Your task to perform on an android device: Search for Mexican restaurants on Maps Image 0: 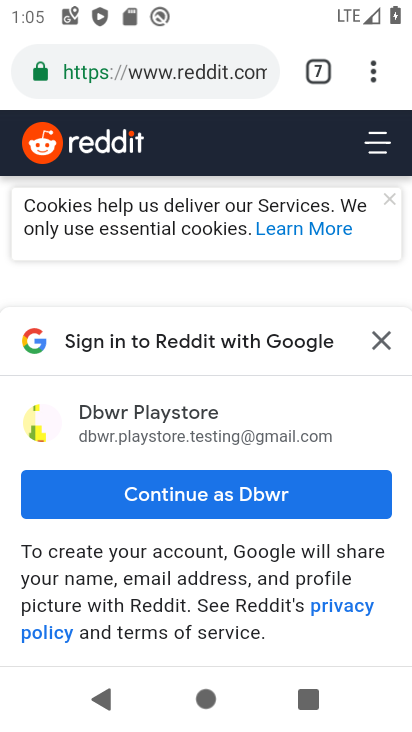
Step 0: press home button
Your task to perform on an android device: Search for Mexican restaurants on Maps Image 1: 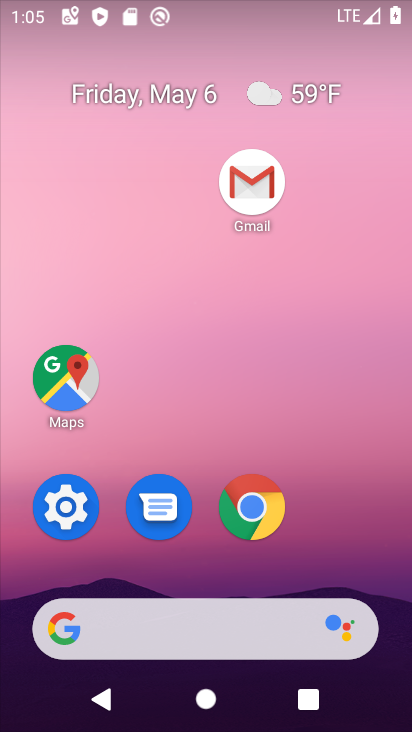
Step 1: click (46, 381)
Your task to perform on an android device: Search for Mexican restaurants on Maps Image 2: 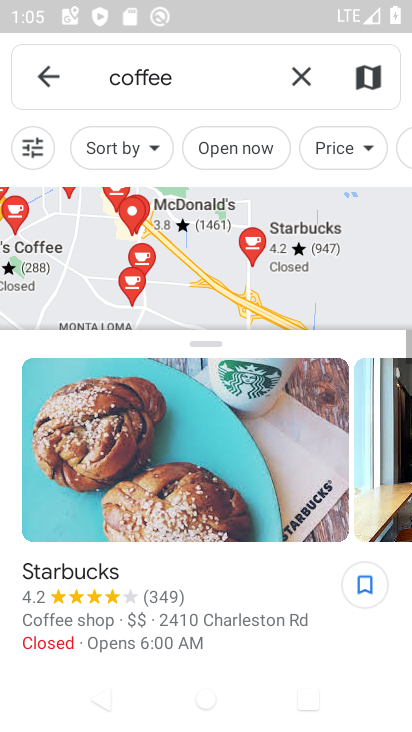
Step 2: click (296, 72)
Your task to perform on an android device: Search for Mexican restaurants on Maps Image 3: 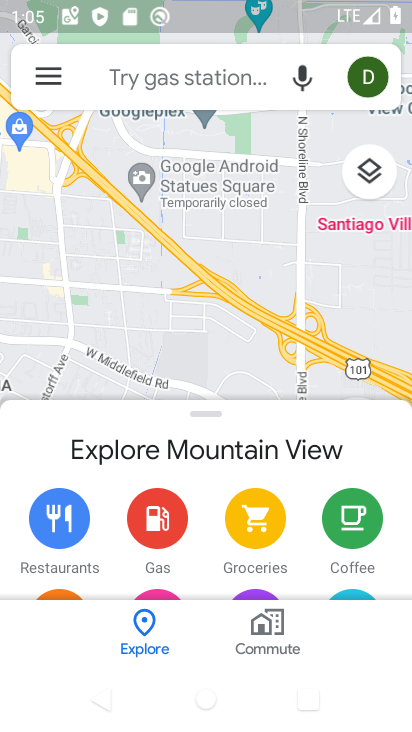
Step 3: click (188, 73)
Your task to perform on an android device: Search for Mexican restaurants on Maps Image 4: 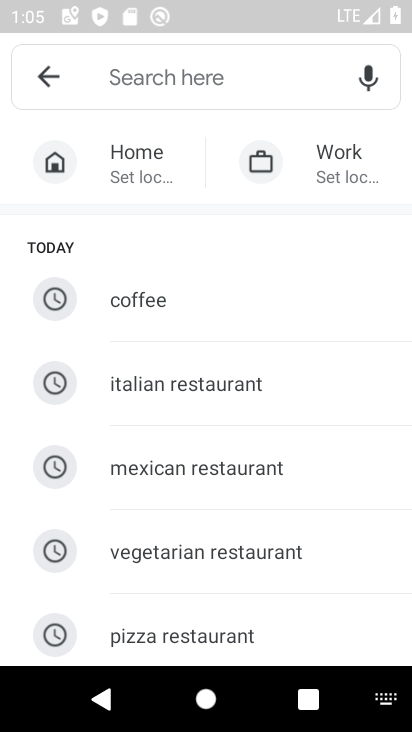
Step 4: click (228, 461)
Your task to perform on an android device: Search for Mexican restaurants on Maps Image 5: 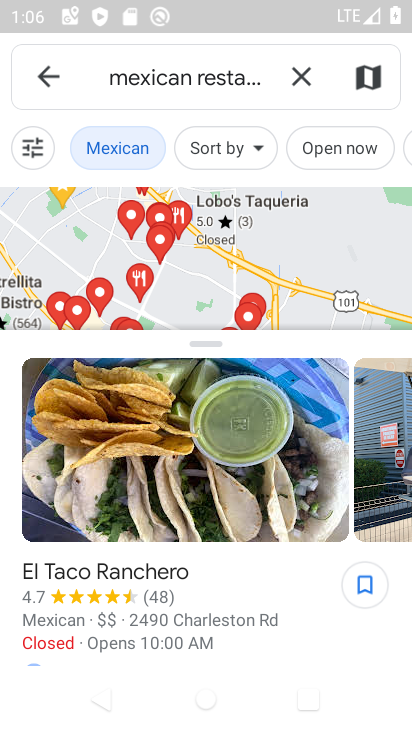
Step 5: task complete